Your task to perform on an android device: toggle data saver in the chrome app Image 0: 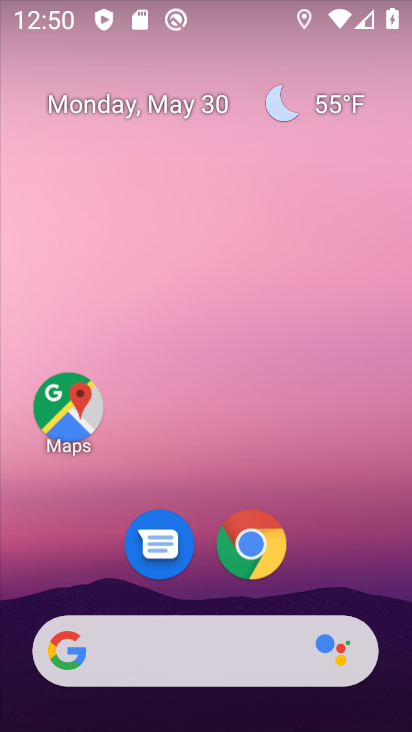
Step 0: click (238, 539)
Your task to perform on an android device: toggle data saver in the chrome app Image 1: 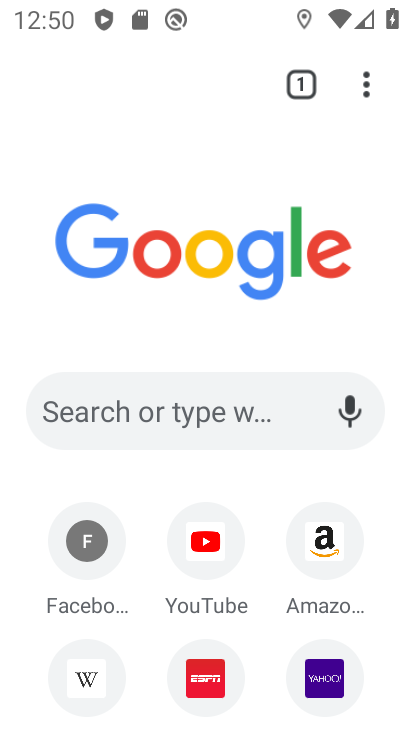
Step 1: click (382, 97)
Your task to perform on an android device: toggle data saver in the chrome app Image 2: 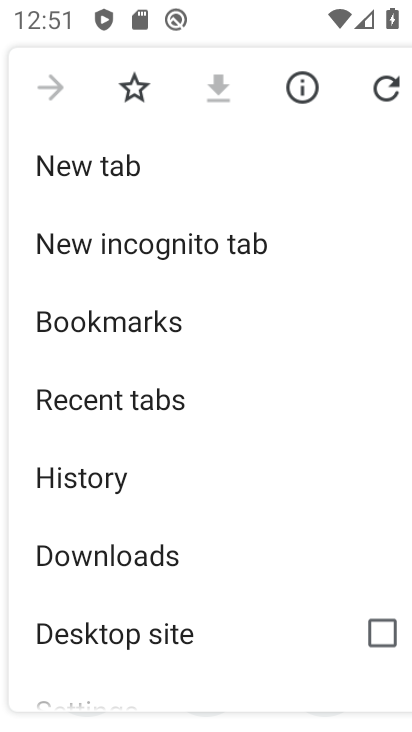
Step 2: drag from (168, 651) to (170, 149)
Your task to perform on an android device: toggle data saver in the chrome app Image 3: 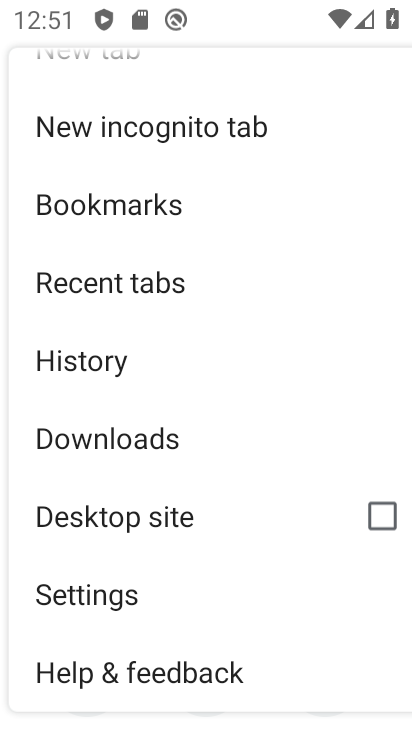
Step 3: click (152, 599)
Your task to perform on an android device: toggle data saver in the chrome app Image 4: 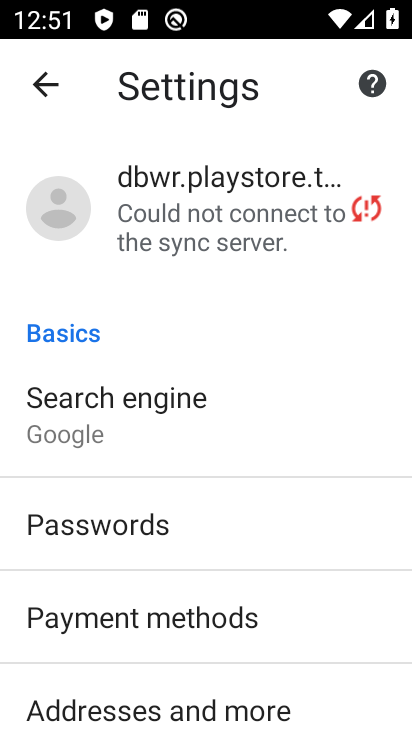
Step 4: drag from (230, 582) to (228, 294)
Your task to perform on an android device: toggle data saver in the chrome app Image 5: 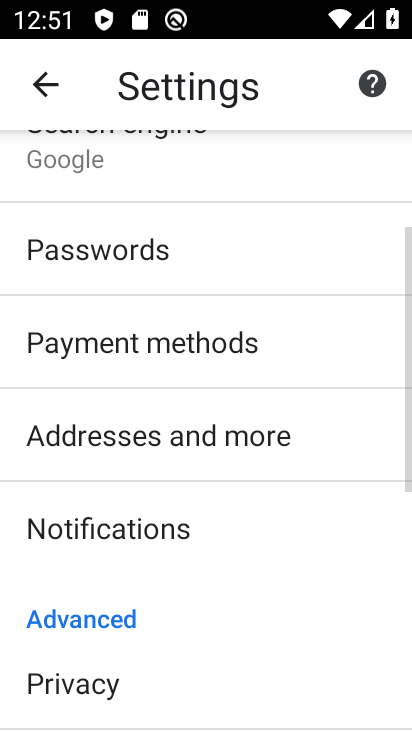
Step 5: drag from (213, 557) to (206, 256)
Your task to perform on an android device: toggle data saver in the chrome app Image 6: 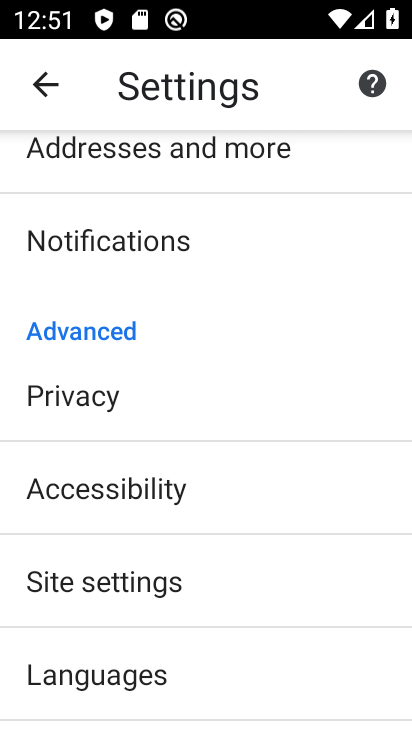
Step 6: drag from (148, 642) to (172, 299)
Your task to perform on an android device: toggle data saver in the chrome app Image 7: 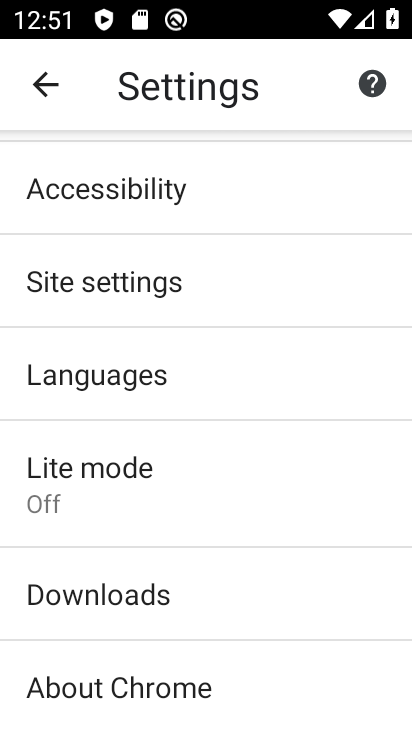
Step 7: click (135, 460)
Your task to perform on an android device: toggle data saver in the chrome app Image 8: 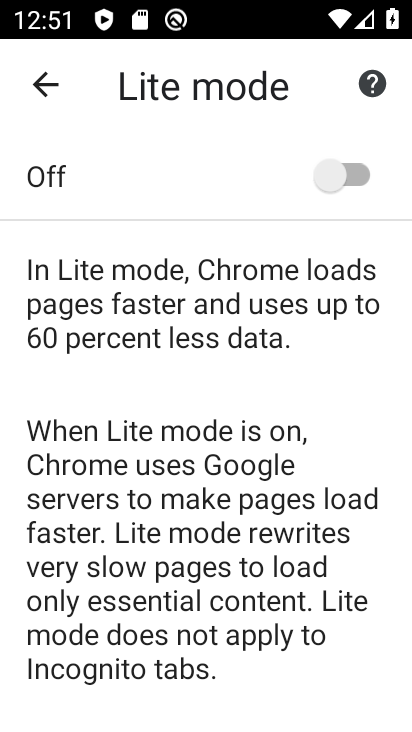
Step 8: click (329, 165)
Your task to perform on an android device: toggle data saver in the chrome app Image 9: 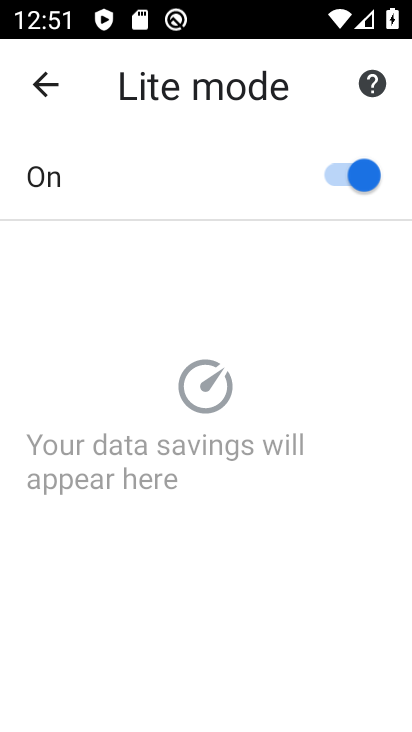
Step 9: task complete